Your task to perform on an android device: turn off notifications in google photos Image 0: 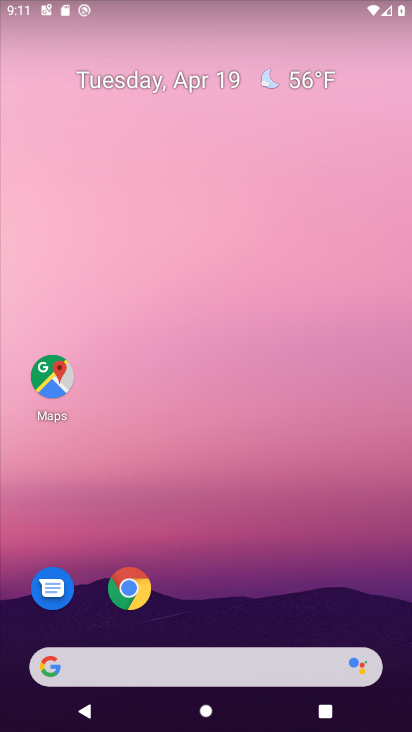
Step 0: drag from (214, 618) to (191, 61)
Your task to perform on an android device: turn off notifications in google photos Image 1: 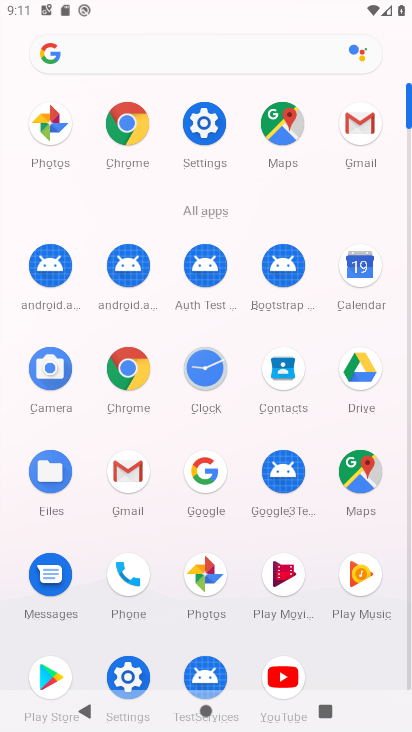
Step 1: click (201, 568)
Your task to perform on an android device: turn off notifications in google photos Image 2: 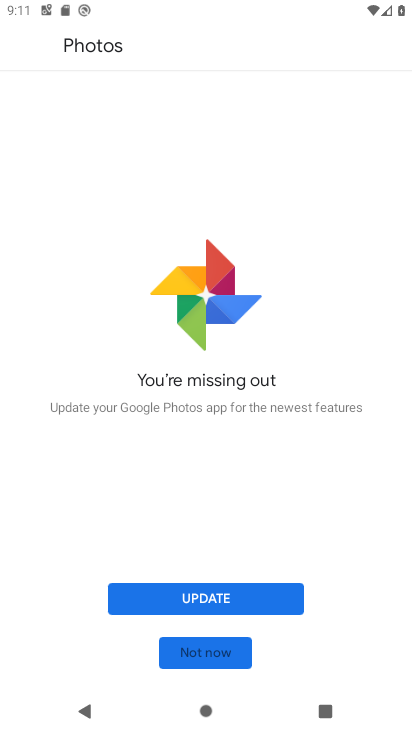
Step 2: click (209, 597)
Your task to perform on an android device: turn off notifications in google photos Image 3: 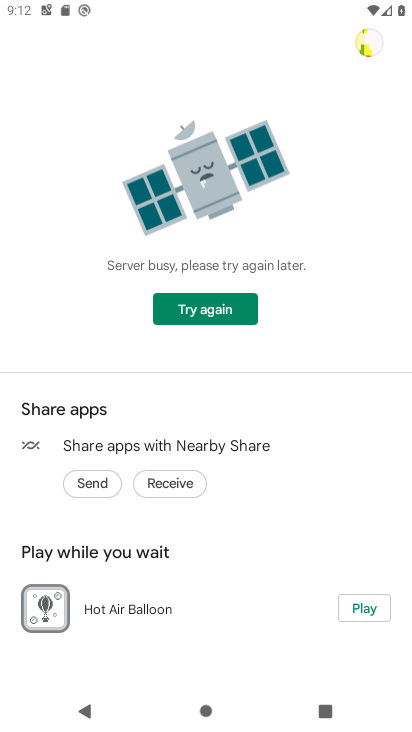
Step 3: click (215, 305)
Your task to perform on an android device: turn off notifications in google photos Image 4: 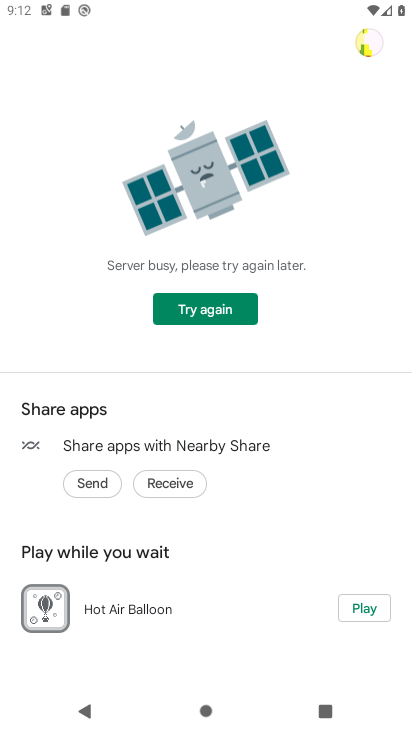
Step 4: task complete